Your task to perform on an android device: Open Youtube and go to the subscriptions tab Image 0: 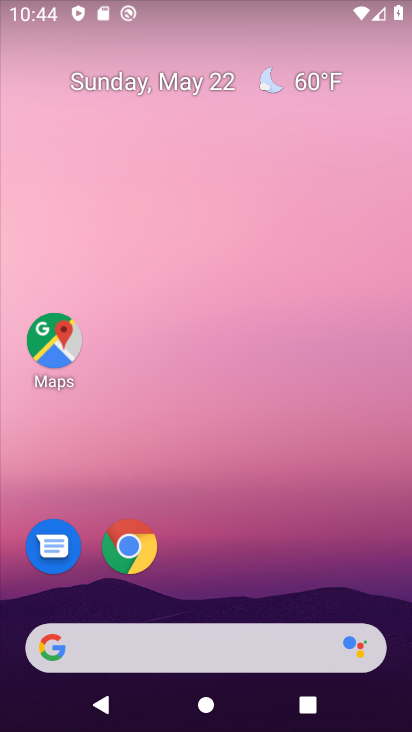
Step 0: drag from (236, 695) to (237, 133)
Your task to perform on an android device: Open Youtube and go to the subscriptions tab Image 1: 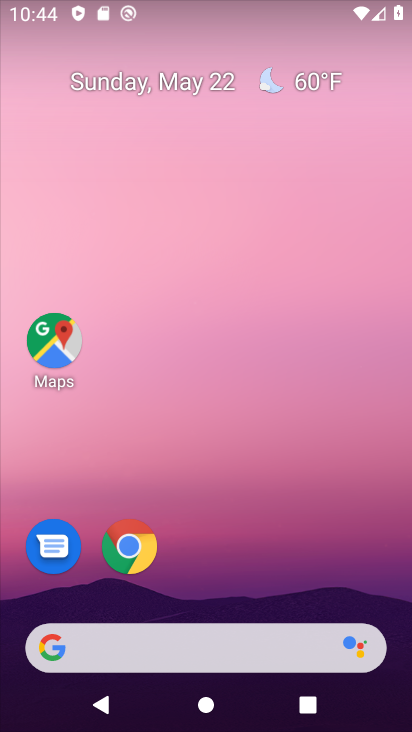
Step 1: drag from (241, 723) to (196, 156)
Your task to perform on an android device: Open Youtube and go to the subscriptions tab Image 2: 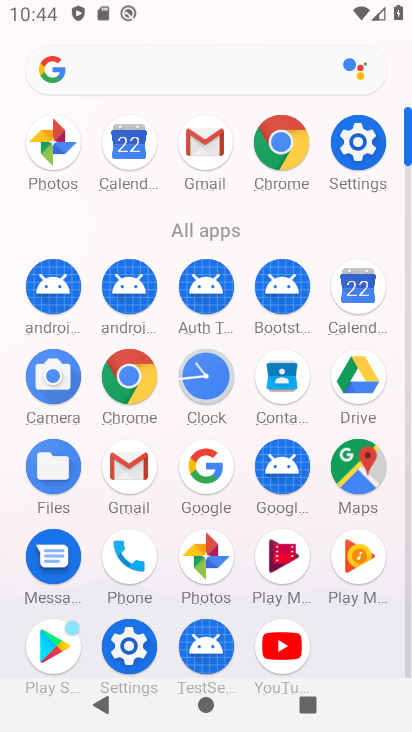
Step 2: click (280, 630)
Your task to perform on an android device: Open Youtube and go to the subscriptions tab Image 3: 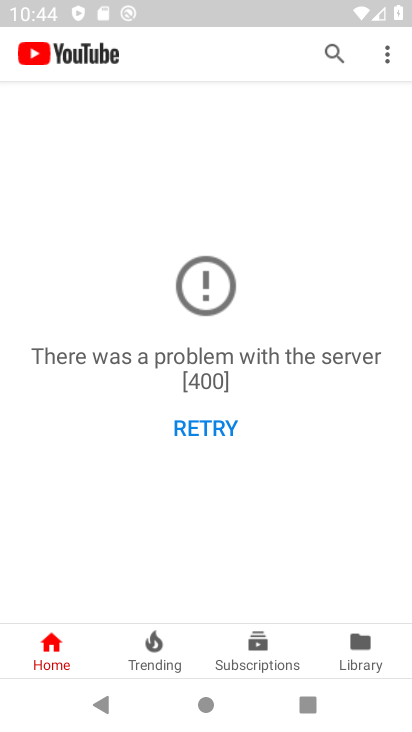
Step 3: click (248, 650)
Your task to perform on an android device: Open Youtube and go to the subscriptions tab Image 4: 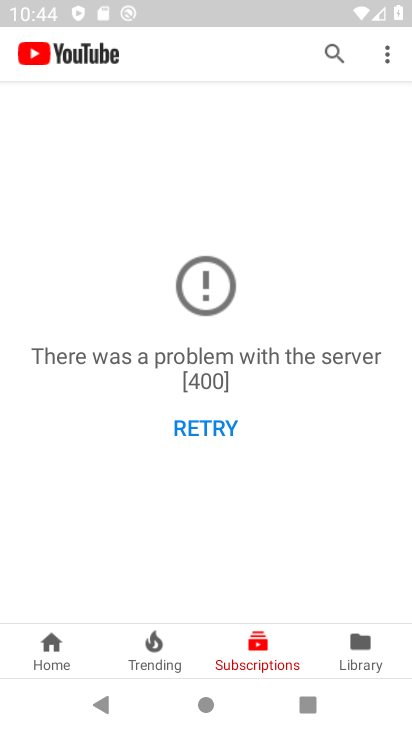
Step 4: task complete